Your task to perform on an android device: Go to sound settings Image 0: 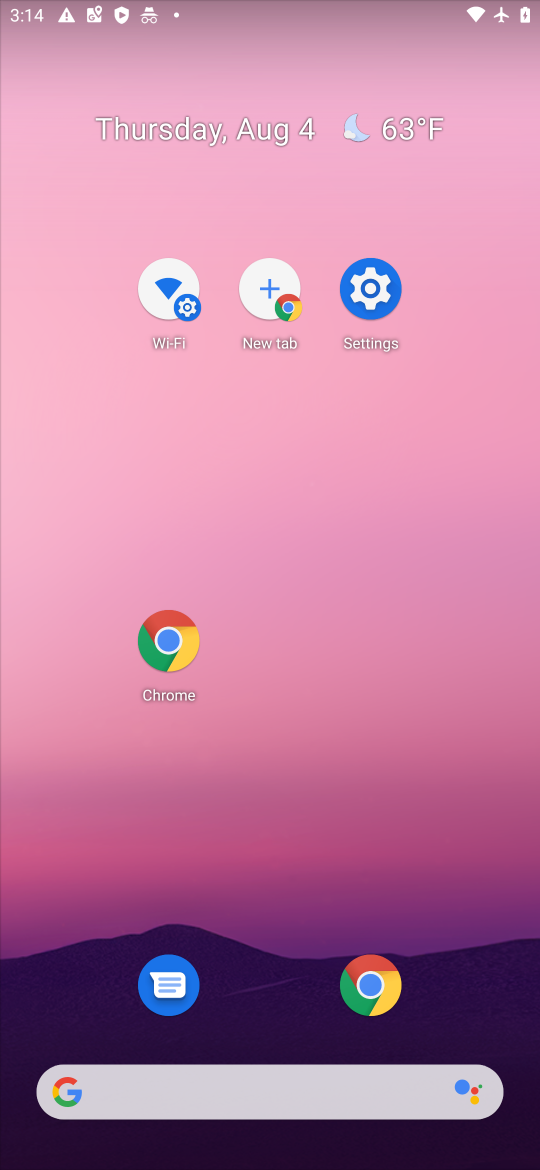
Step 0: drag from (143, 951) to (82, 362)
Your task to perform on an android device: Go to sound settings Image 1: 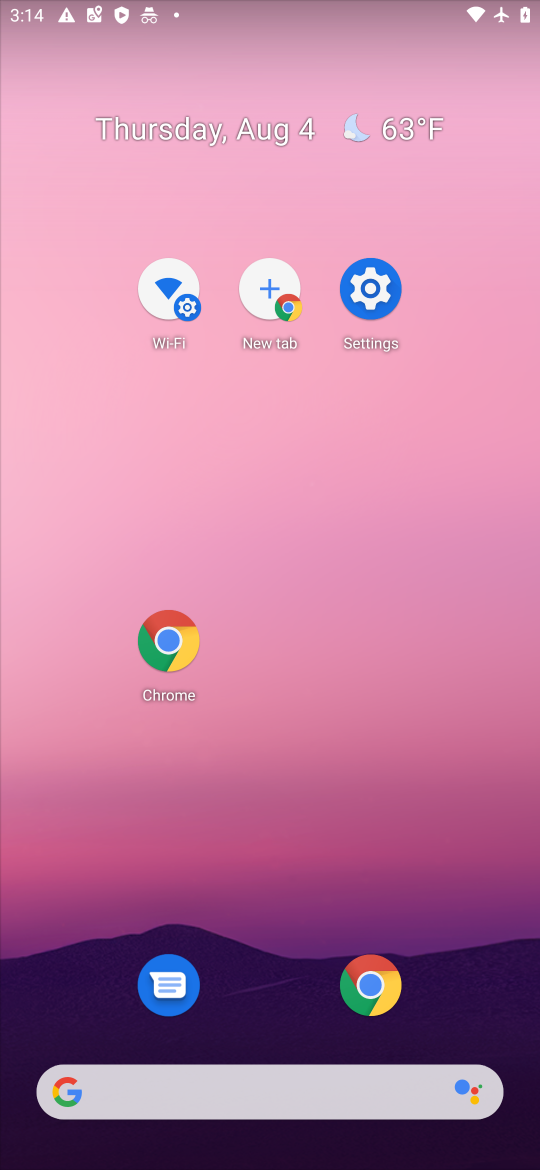
Step 1: drag from (150, 853) to (99, 322)
Your task to perform on an android device: Go to sound settings Image 2: 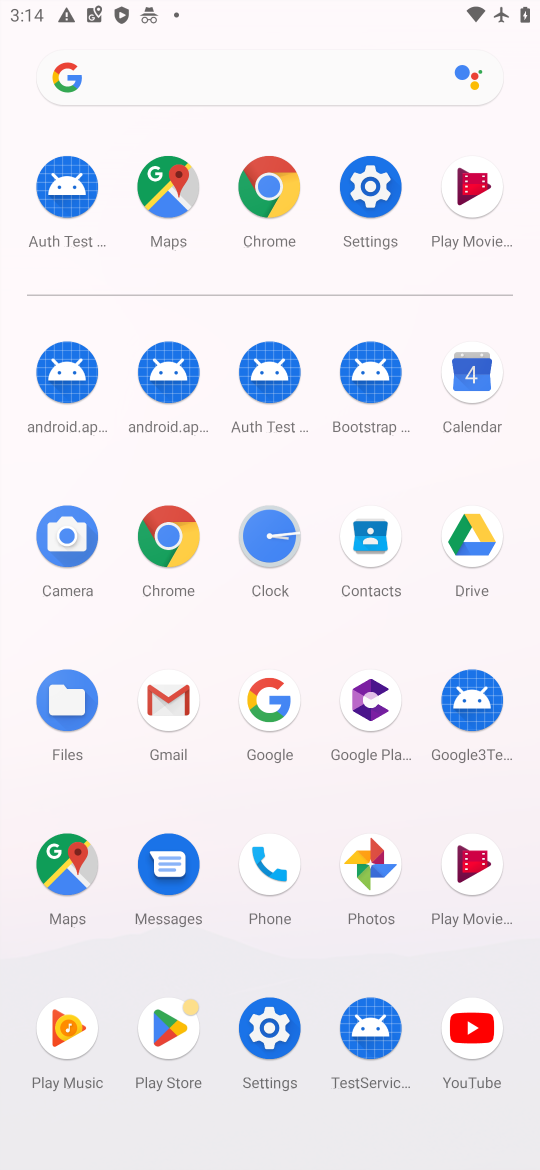
Step 2: click (357, 189)
Your task to perform on an android device: Go to sound settings Image 3: 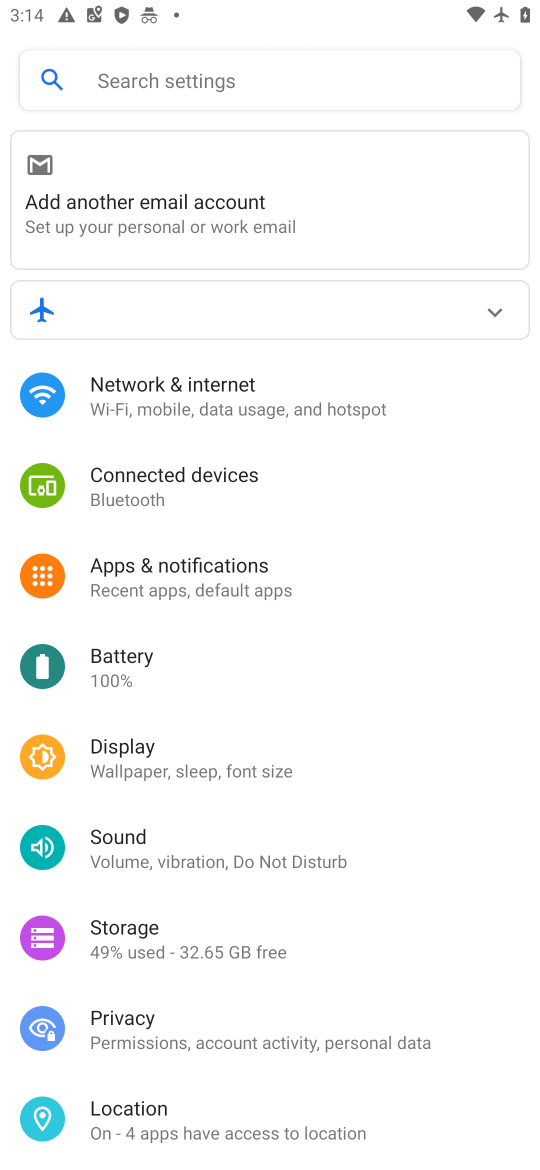
Step 3: click (123, 841)
Your task to perform on an android device: Go to sound settings Image 4: 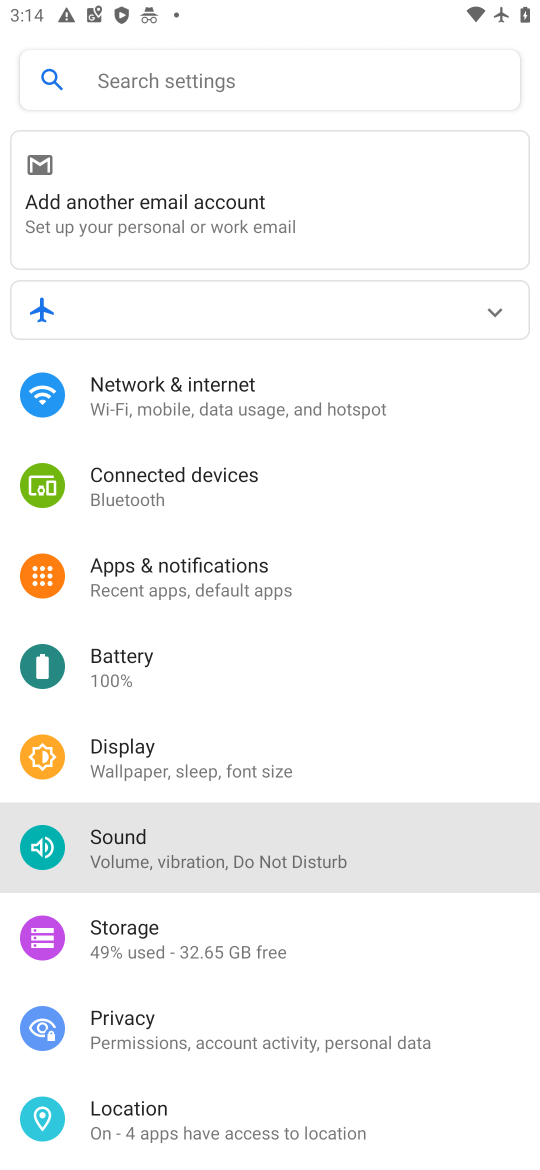
Step 4: click (123, 848)
Your task to perform on an android device: Go to sound settings Image 5: 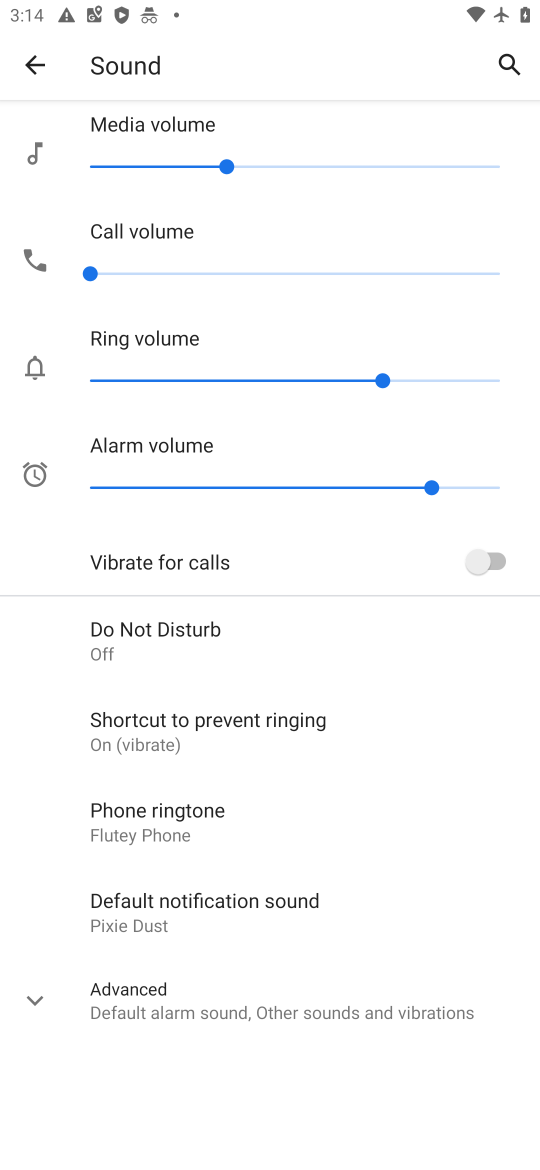
Step 5: task complete